Your task to perform on an android device: change notifications settings Image 0: 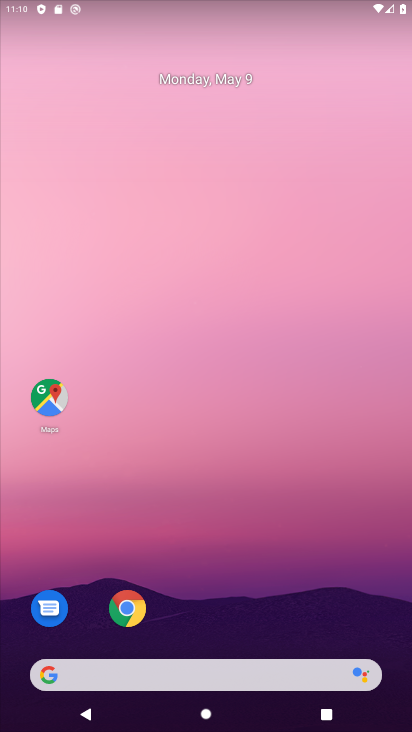
Step 0: drag from (17, 714) to (343, 57)
Your task to perform on an android device: change notifications settings Image 1: 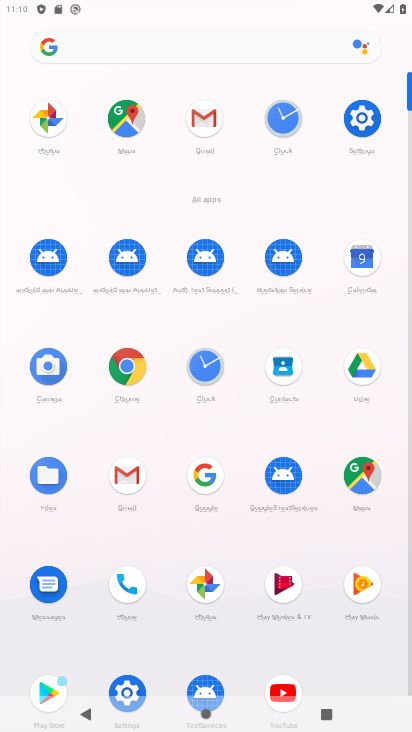
Step 1: click (365, 120)
Your task to perform on an android device: change notifications settings Image 2: 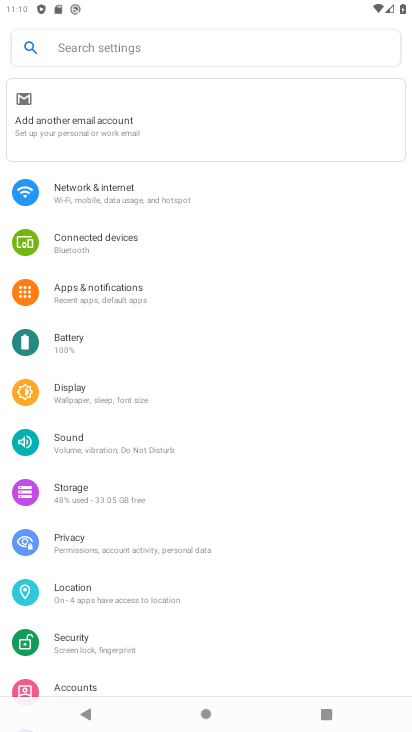
Step 2: click (105, 296)
Your task to perform on an android device: change notifications settings Image 3: 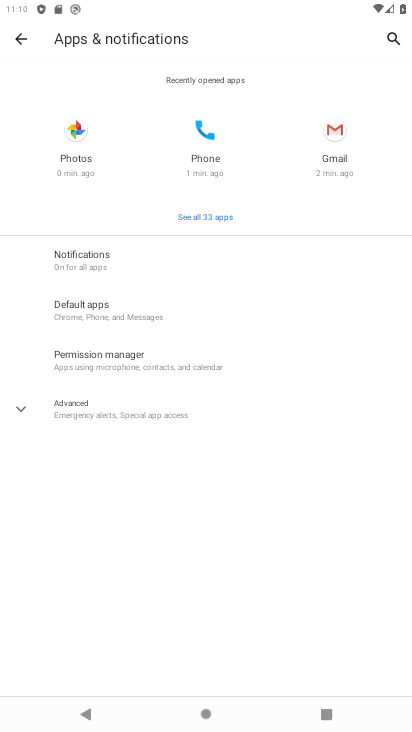
Step 3: click (121, 274)
Your task to perform on an android device: change notifications settings Image 4: 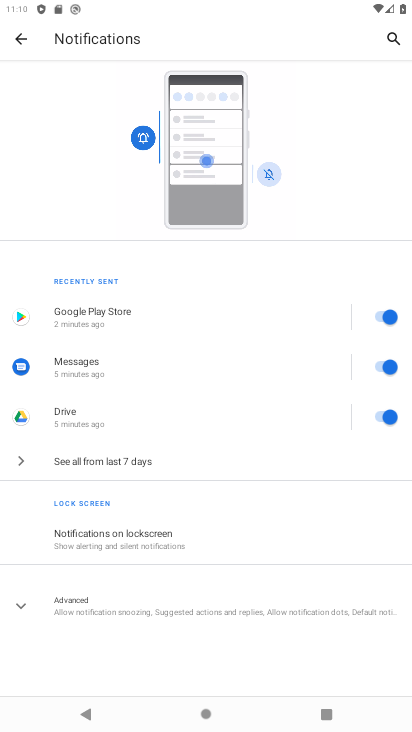
Step 4: click (395, 367)
Your task to perform on an android device: change notifications settings Image 5: 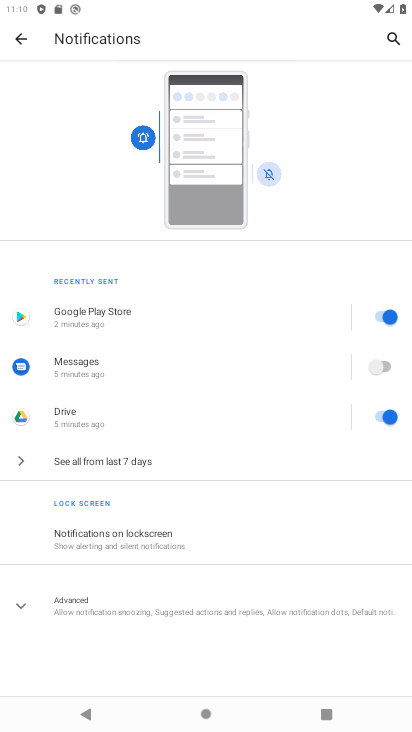
Step 5: task complete